Your task to perform on an android device: What's the weather today? Image 0: 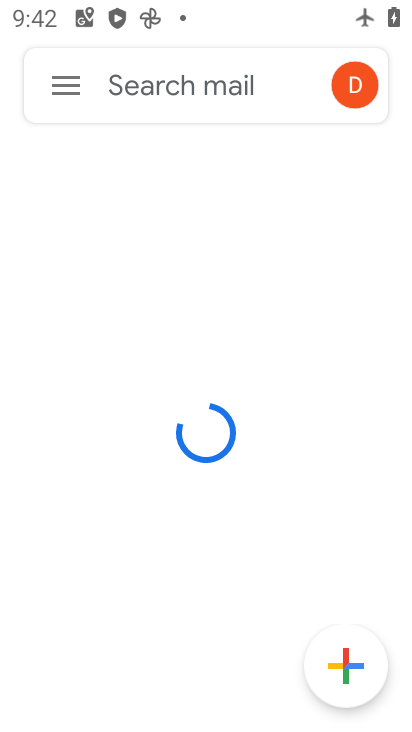
Step 0: press home button
Your task to perform on an android device: What's the weather today? Image 1: 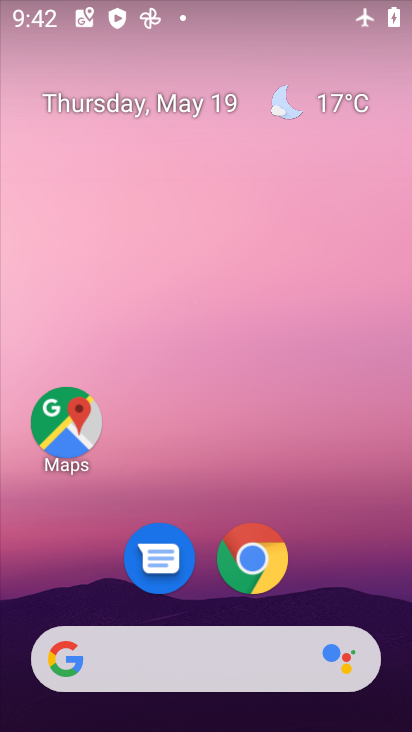
Step 1: click (281, 110)
Your task to perform on an android device: What's the weather today? Image 2: 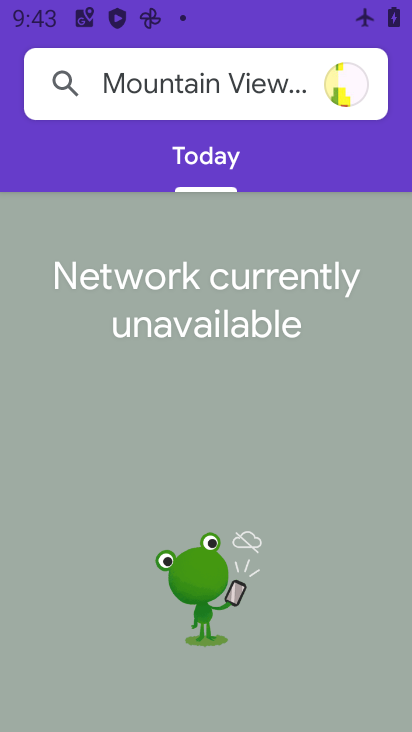
Step 2: task complete